Your task to perform on an android device: Open Chrome and go to settings Image 0: 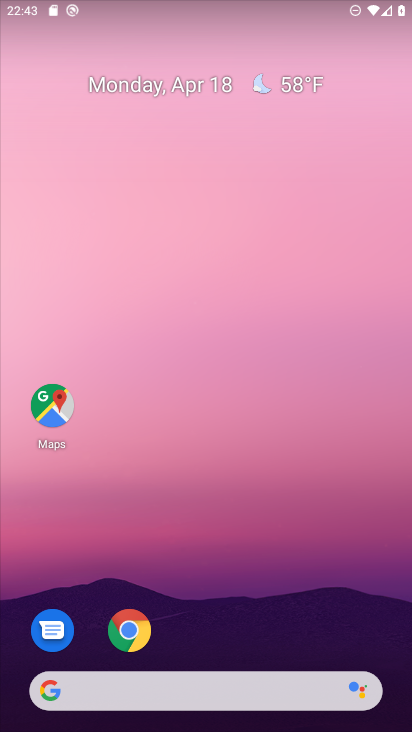
Step 0: click (149, 625)
Your task to perform on an android device: Open Chrome and go to settings Image 1: 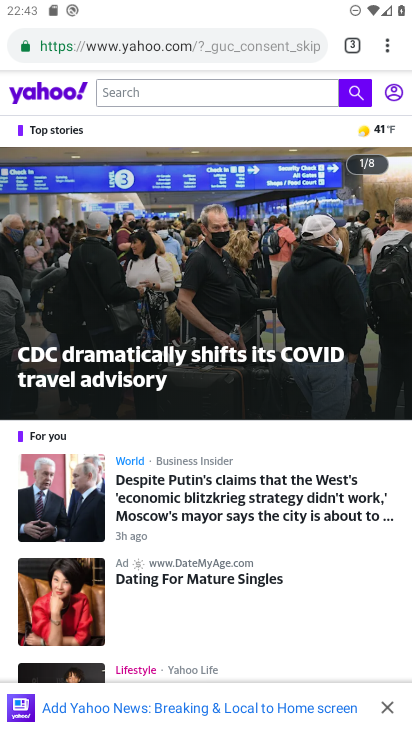
Step 1: click (381, 46)
Your task to perform on an android device: Open Chrome and go to settings Image 2: 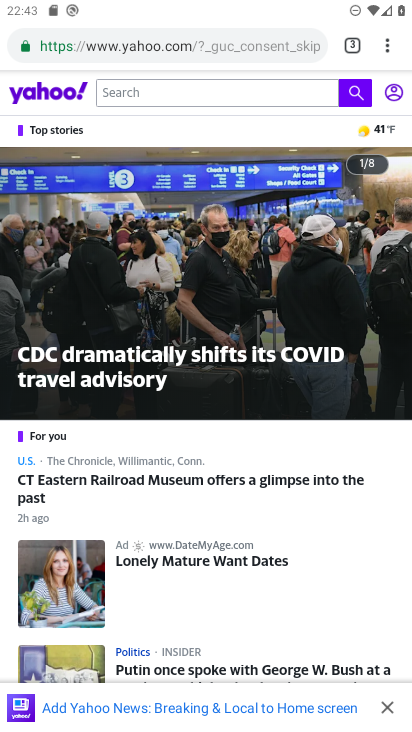
Step 2: click (384, 46)
Your task to perform on an android device: Open Chrome and go to settings Image 3: 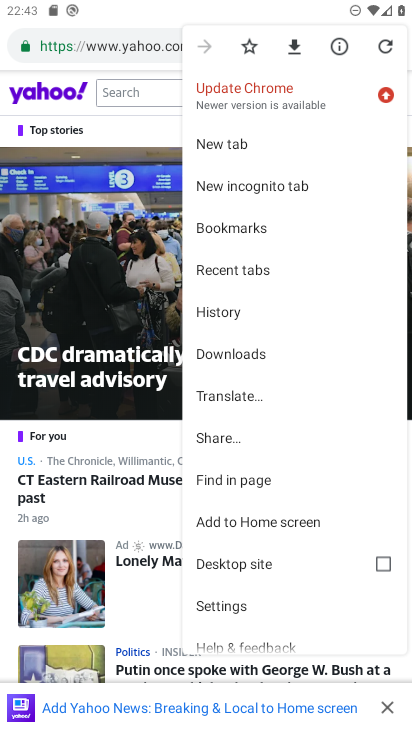
Step 3: click (223, 598)
Your task to perform on an android device: Open Chrome and go to settings Image 4: 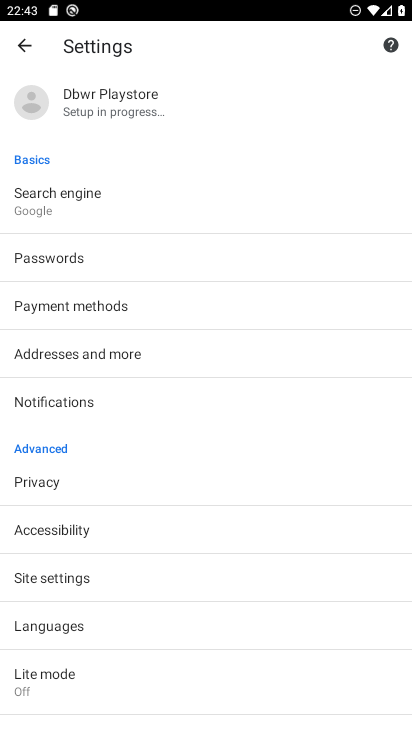
Step 4: task complete